Your task to perform on an android device: turn off notifications in google photos Image 0: 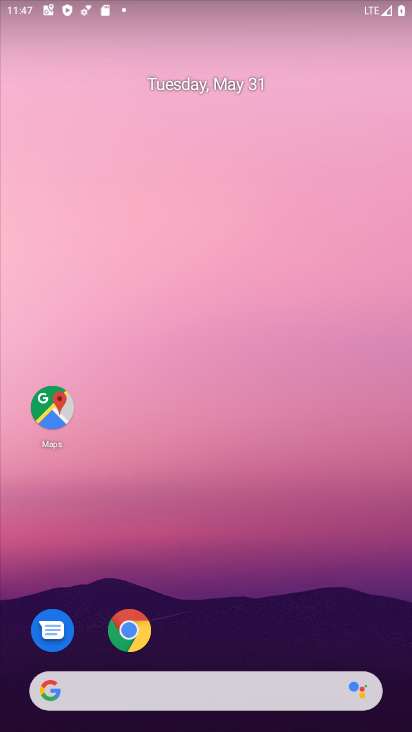
Step 0: press home button
Your task to perform on an android device: turn off notifications in google photos Image 1: 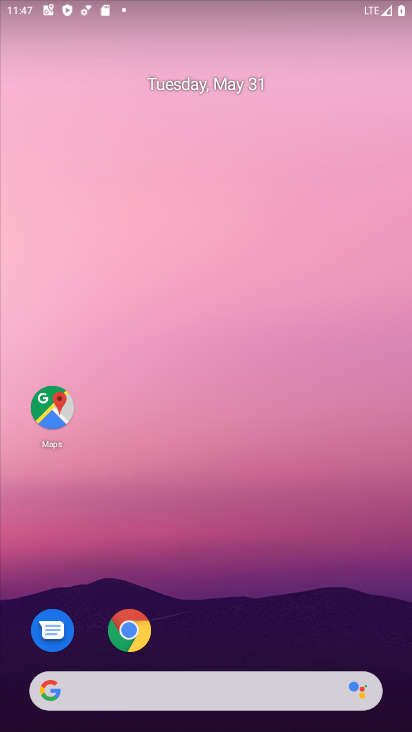
Step 1: drag from (284, 618) to (280, 175)
Your task to perform on an android device: turn off notifications in google photos Image 2: 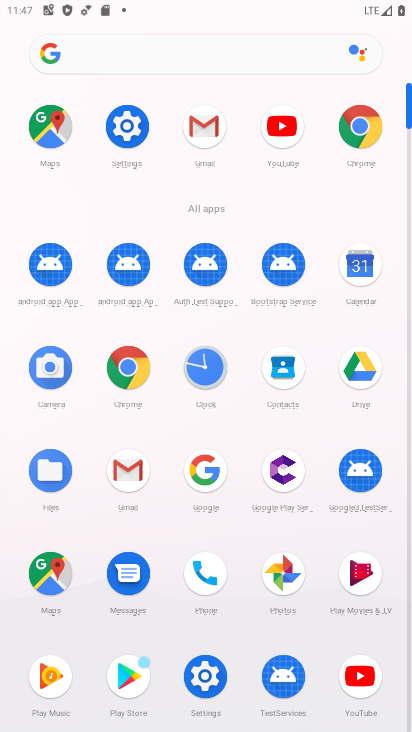
Step 2: click (285, 567)
Your task to perform on an android device: turn off notifications in google photos Image 3: 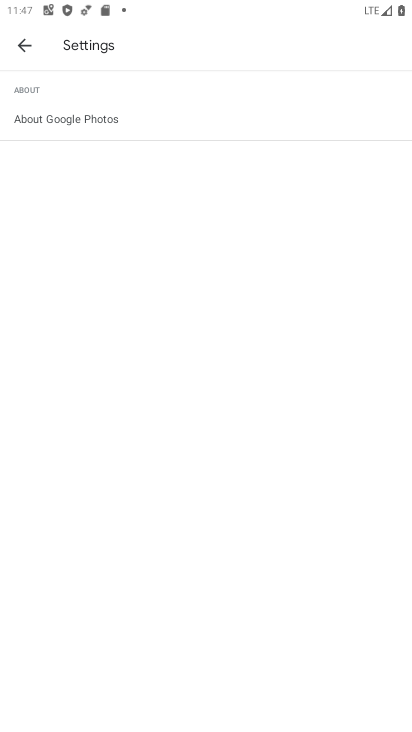
Step 3: click (23, 50)
Your task to perform on an android device: turn off notifications in google photos Image 4: 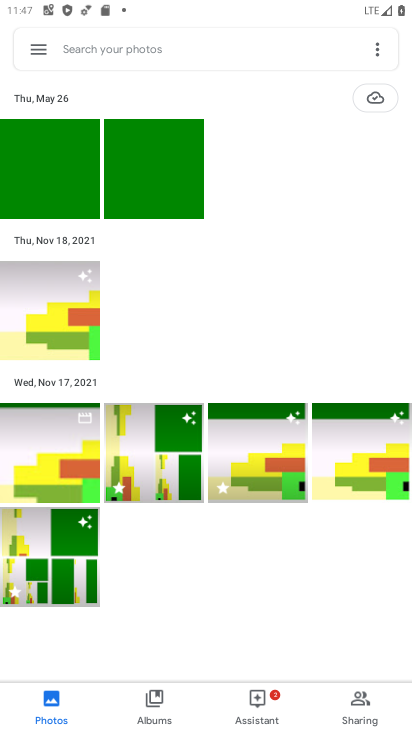
Step 4: click (33, 52)
Your task to perform on an android device: turn off notifications in google photos Image 5: 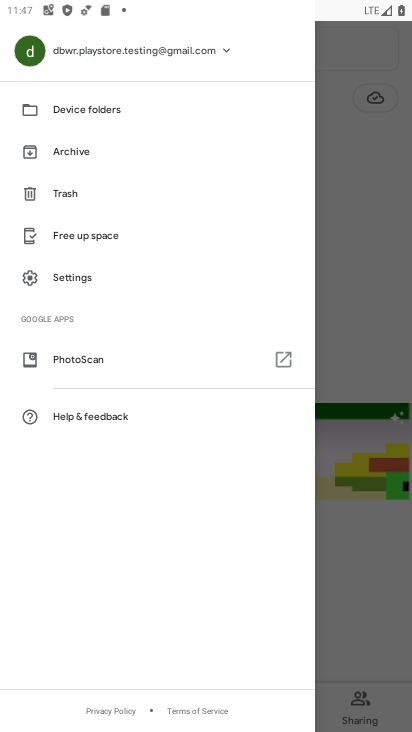
Step 5: click (79, 276)
Your task to perform on an android device: turn off notifications in google photos Image 6: 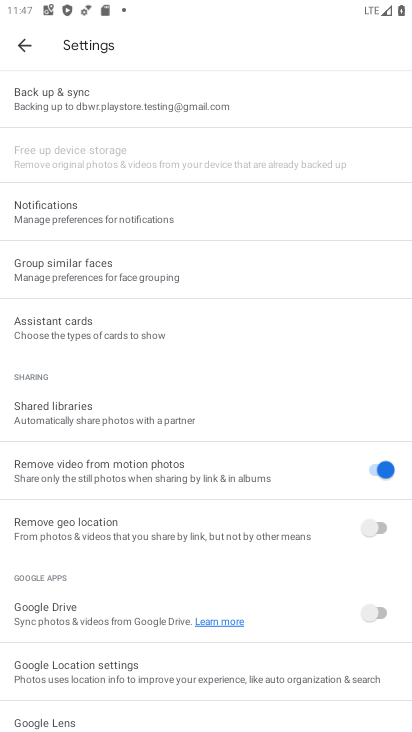
Step 6: click (81, 198)
Your task to perform on an android device: turn off notifications in google photos Image 7: 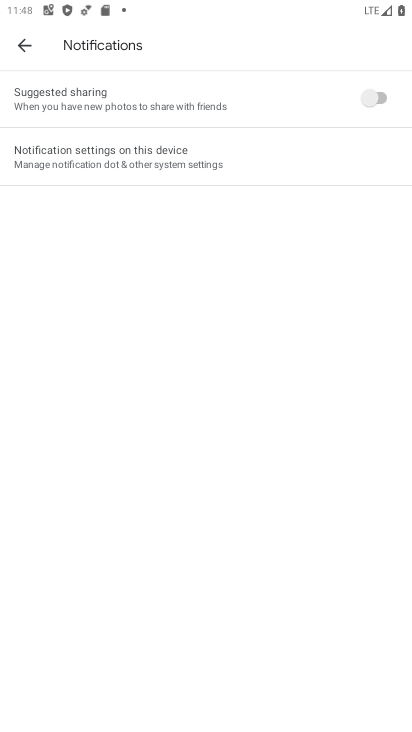
Step 7: click (256, 161)
Your task to perform on an android device: turn off notifications in google photos Image 8: 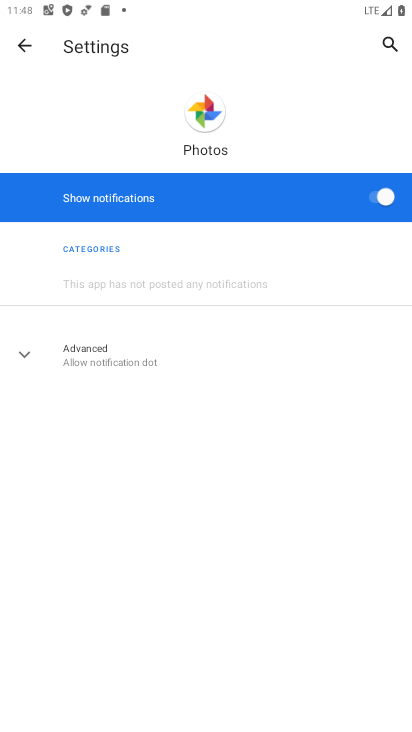
Step 8: click (377, 188)
Your task to perform on an android device: turn off notifications in google photos Image 9: 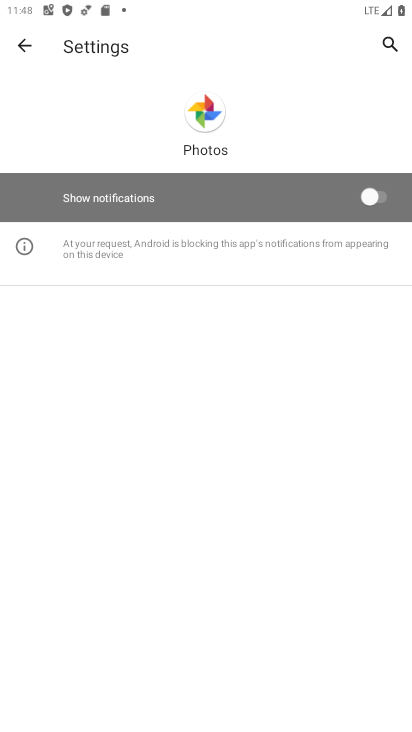
Step 9: task complete